Your task to perform on an android device: Go to Maps Image 0: 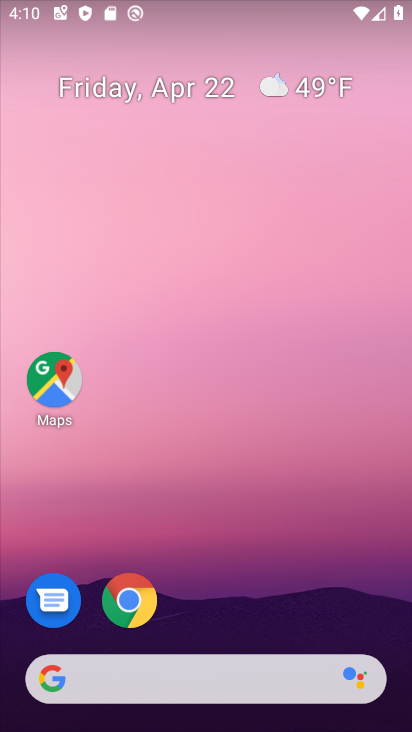
Step 0: click (54, 379)
Your task to perform on an android device: Go to Maps Image 1: 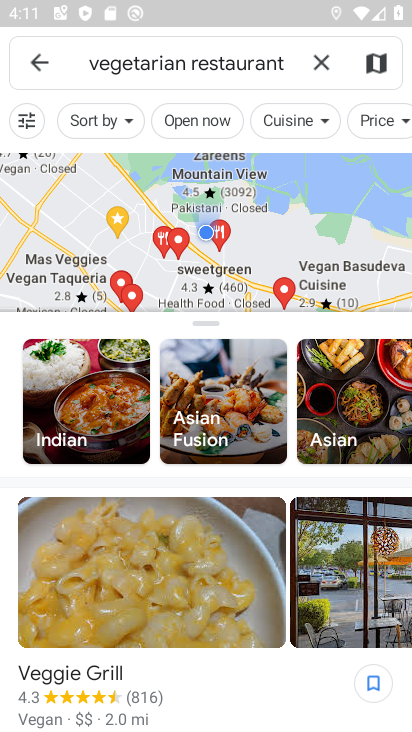
Step 1: task complete